Your task to perform on an android device: Show me the alarms in the clock app Image 0: 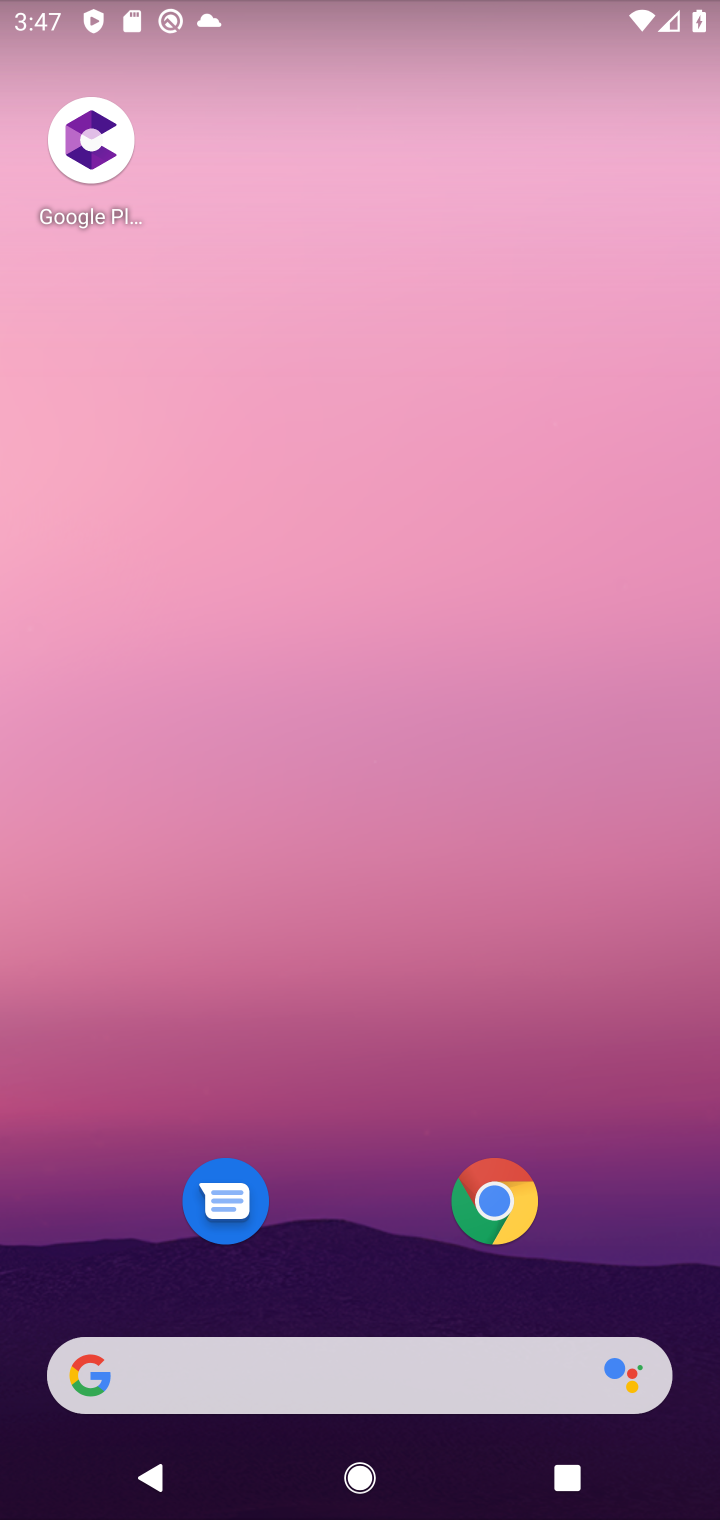
Step 0: drag from (315, 1279) to (424, 457)
Your task to perform on an android device: Show me the alarms in the clock app Image 1: 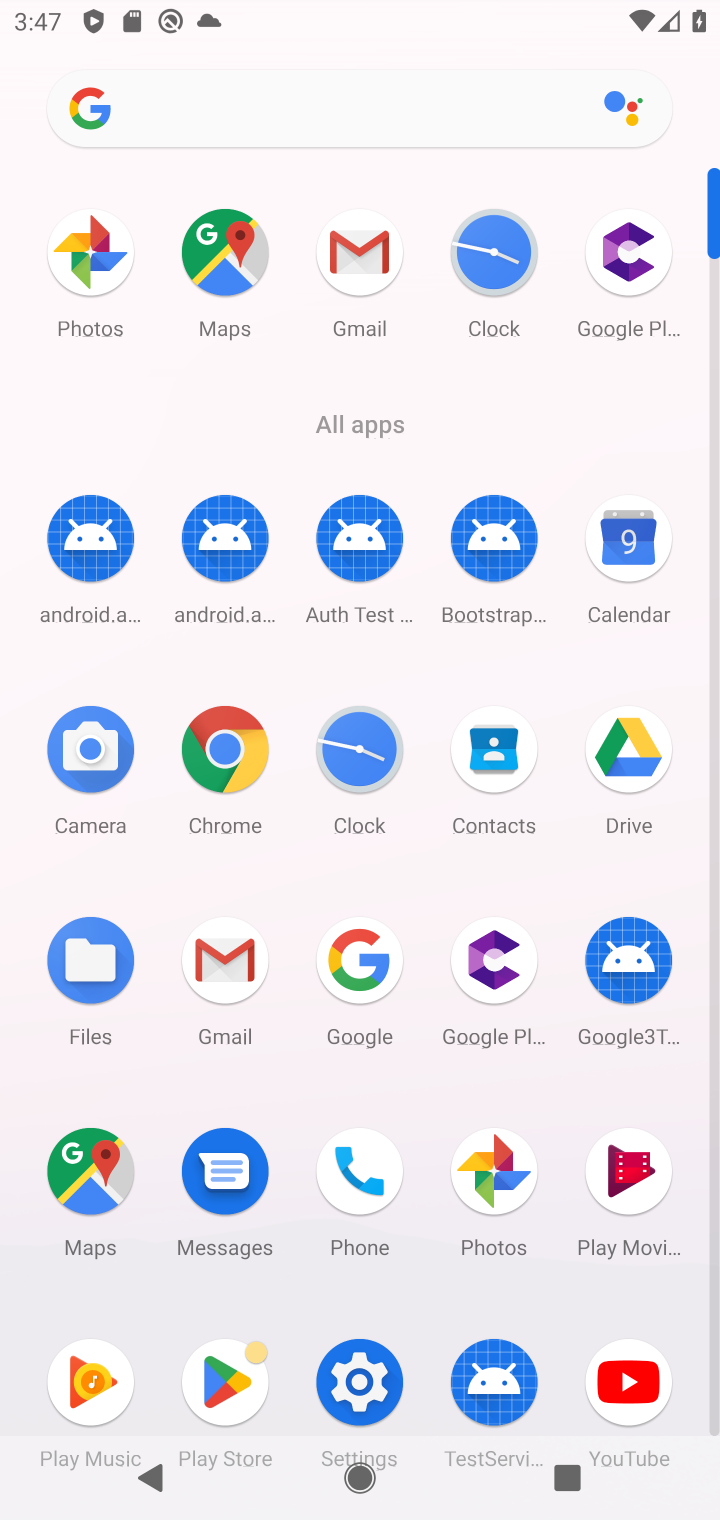
Step 1: click (461, 253)
Your task to perform on an android device: Show me the alarms in the clock app Image 2: 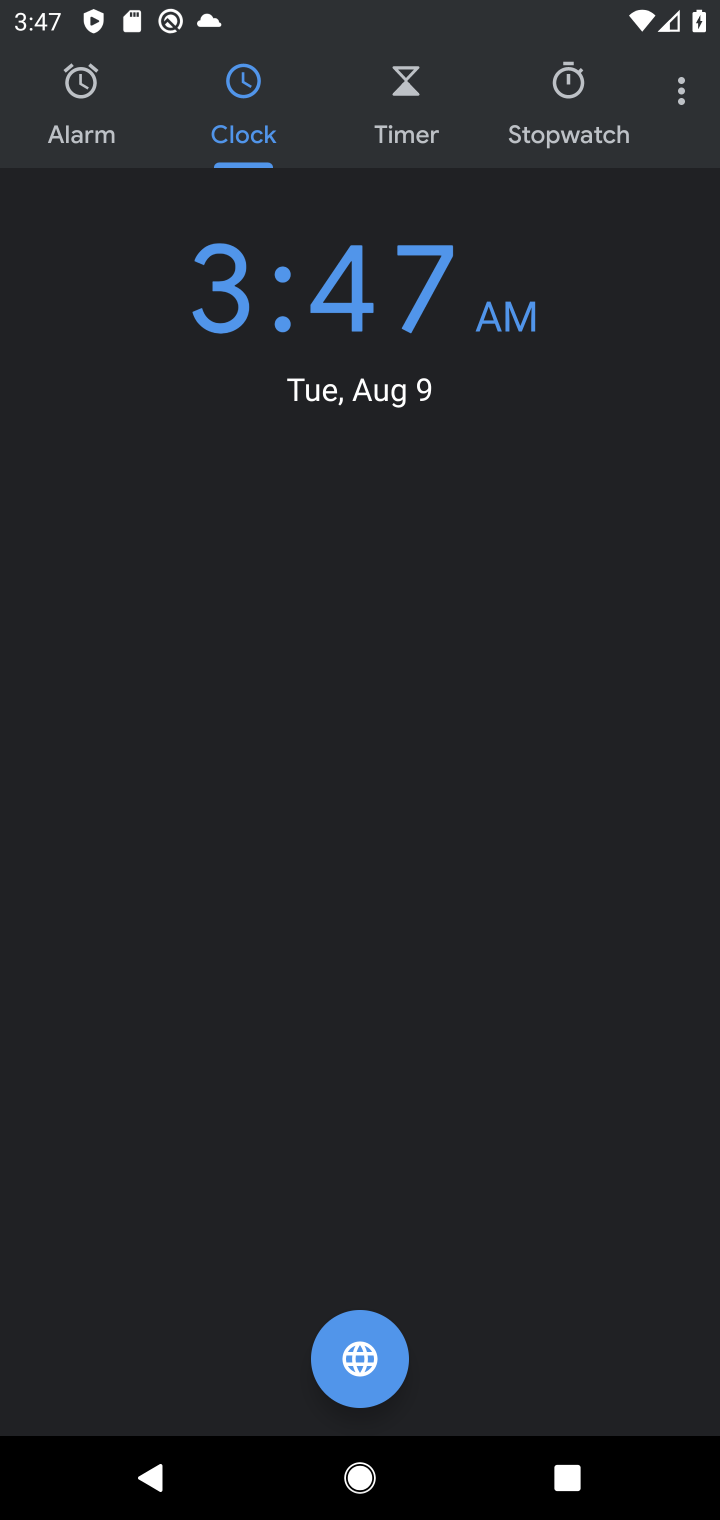
Step 2: click (60, 111)
Your task to perform on an android device: Show me the alarms in the clock app Image 3: 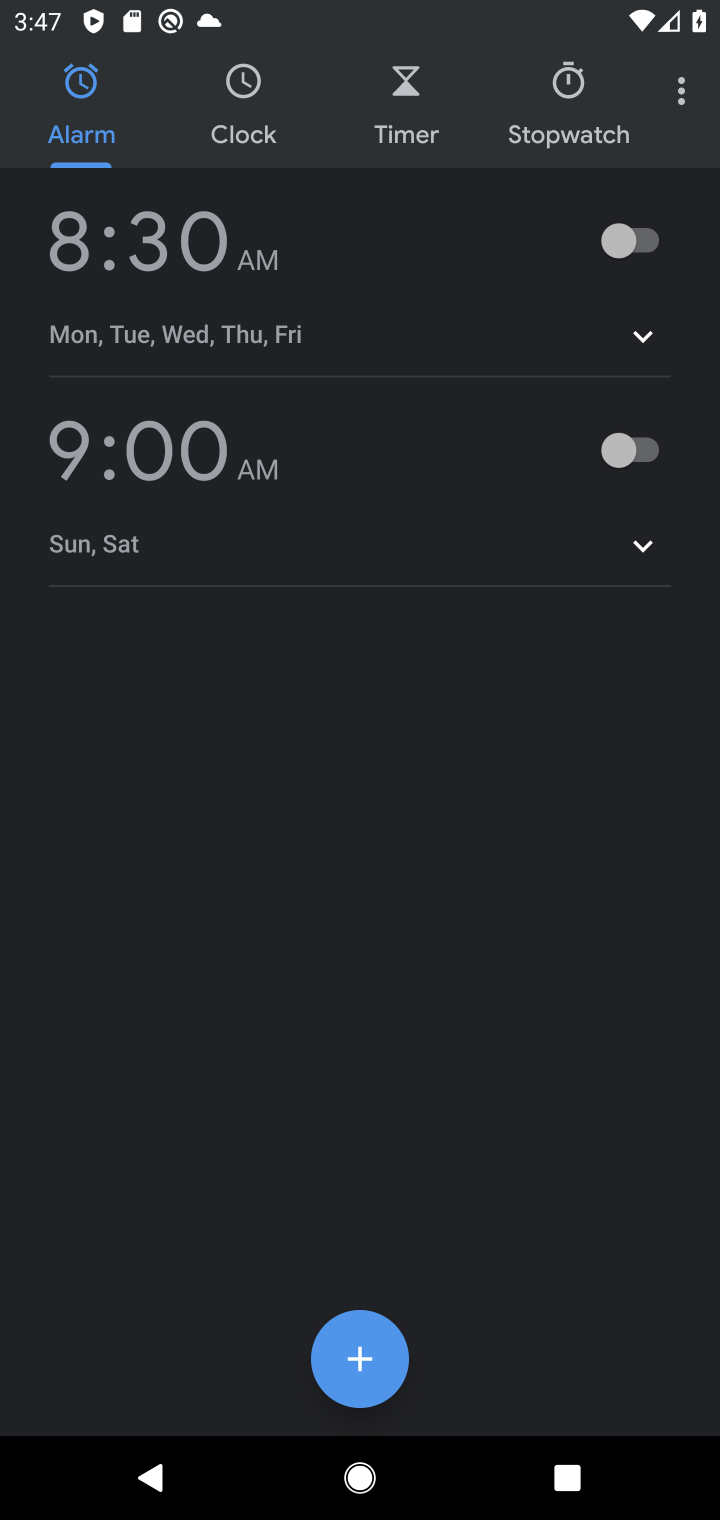
Step 3: task complete